Your task to perform on an android device: toggle show notifications on the lock screen Image 0: 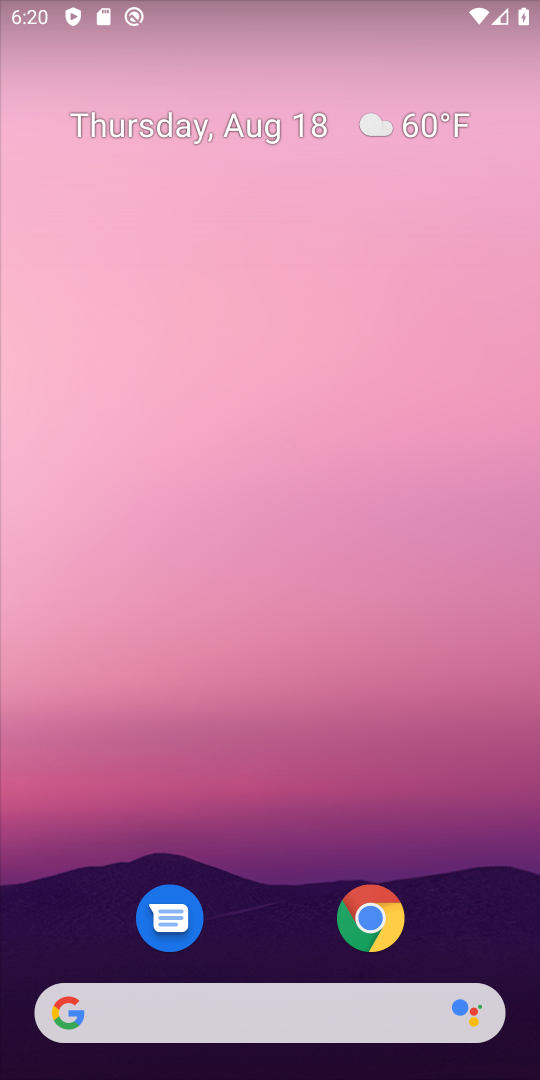
Step 0: press home button
Your task to perform on an android device: toggle show notifications on the lock screen Image 1: 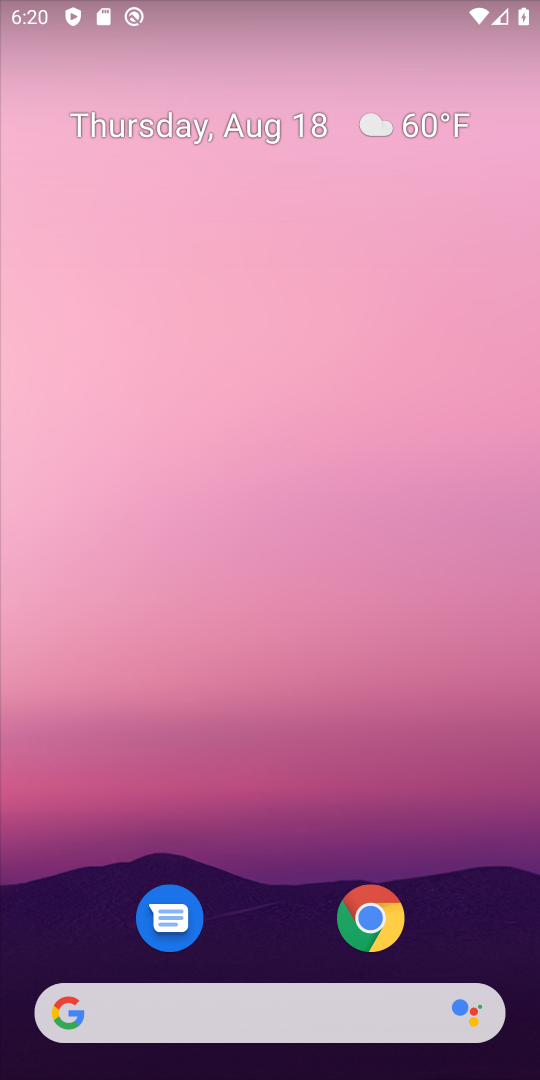
Step 1: drag from (271, 926) to (244, 49)
Your task to perform on an android device: toggle show notifications on the lock screen Image 2: 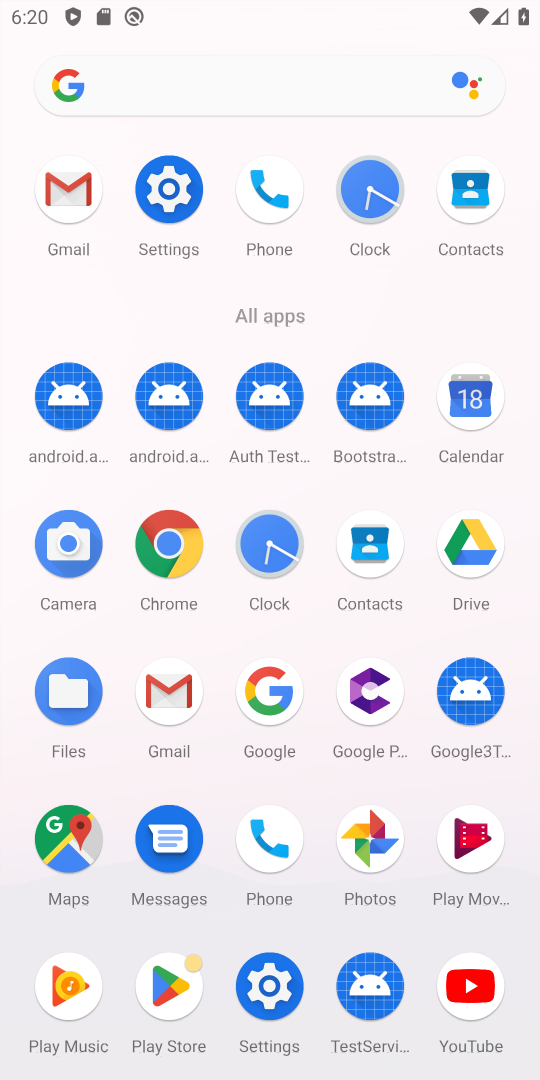
Step 2: click (166, 207)
Your task to perform on an android device: toggle show notifications on the lock screen Image 3: 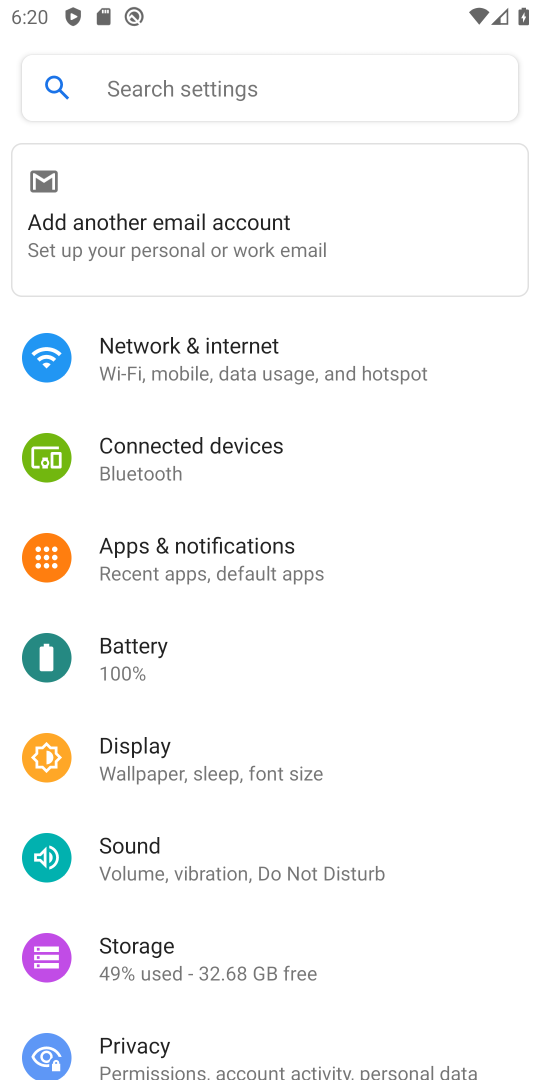
Step 3: click (181, 560)
Your task to perform on an android device: toggle show notifications on the lock screen Image 4: 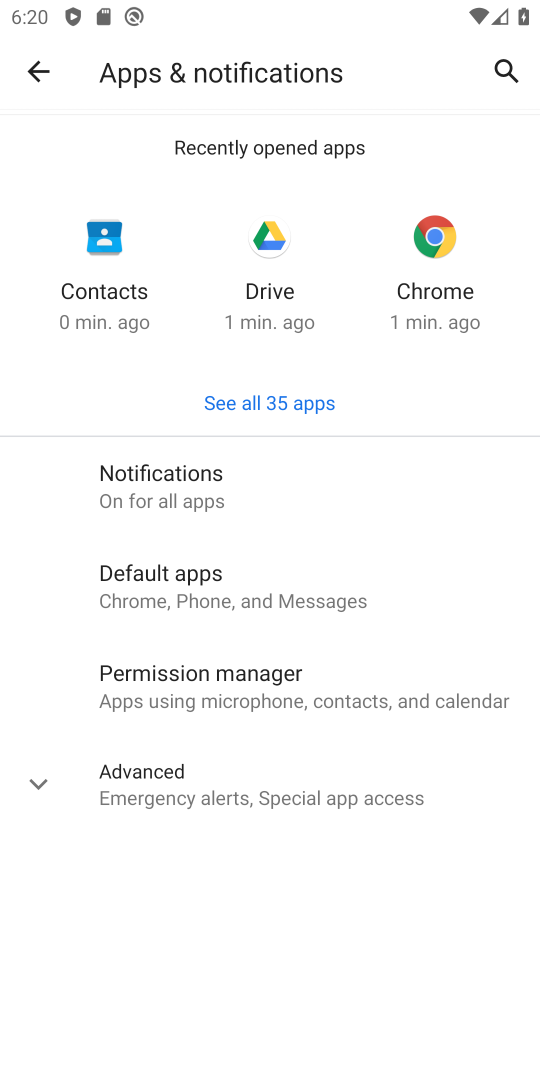
Step 4: click (157, 492)
Your task to perform on an android device: toggle show notifications on the lock screen Image 5: 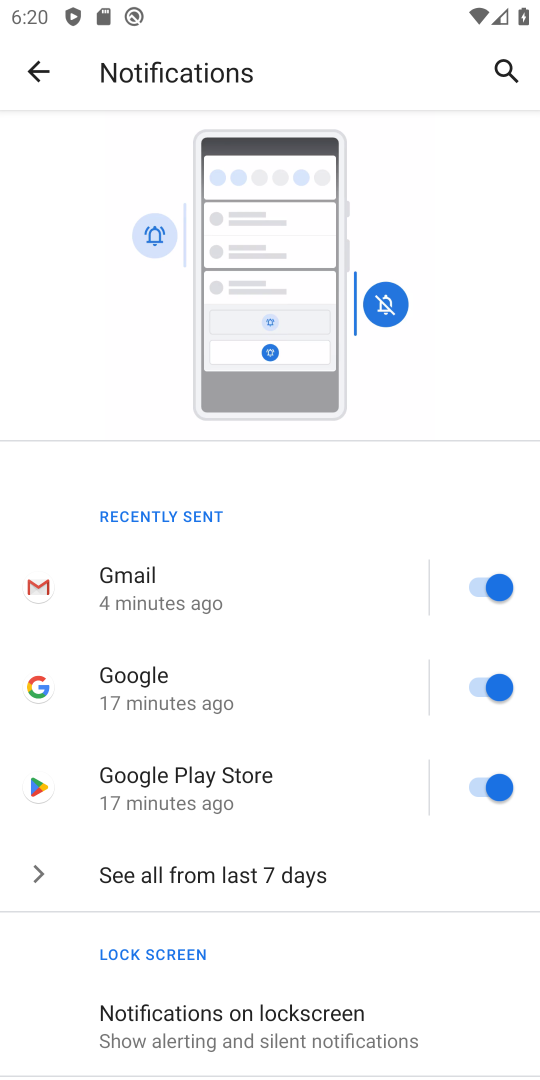
Step 5: drag from (417, 975) to (360, 503)
Your task to perform on an android device: toggle show notifications on the lock screen Image 6: 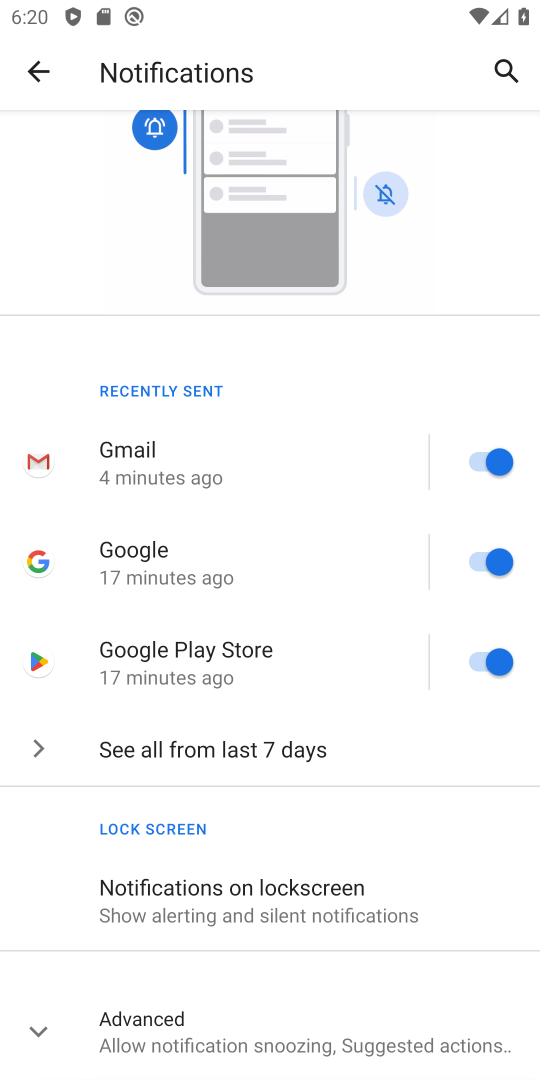
Step 6: click (190, 905)
Your task to perform on an android device: toggle show notifications on the lock screen Image 7: 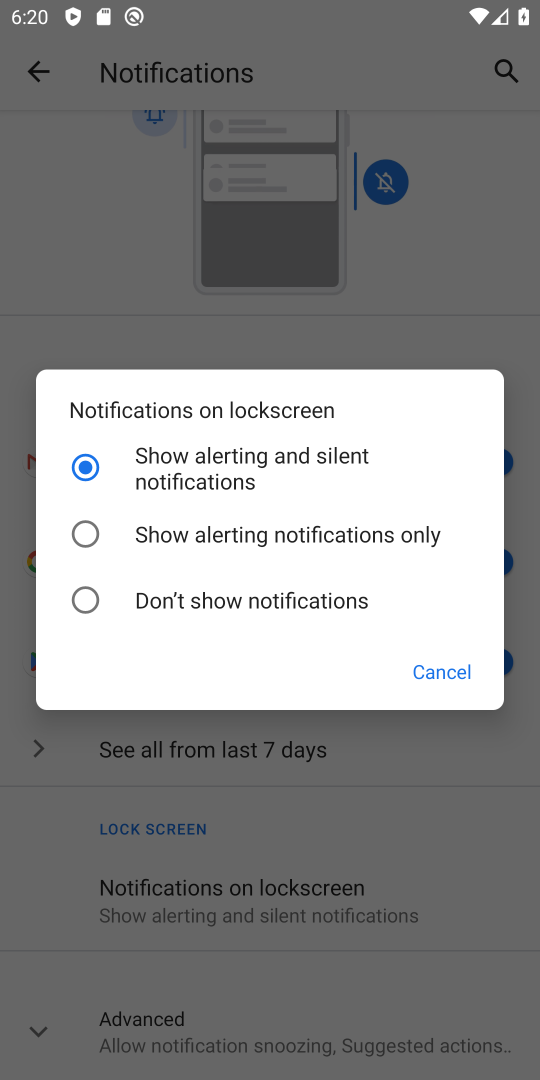
Step 7: click (87, 611)
Your task to perform on an android device: toggle show notifications on the lock screen Image 8: 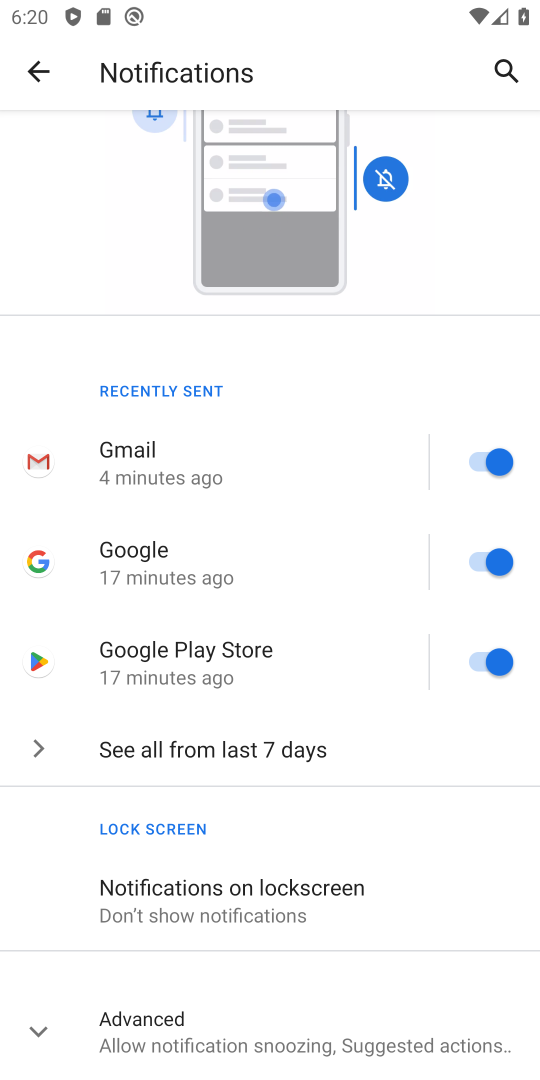
Step 8: task complete